Your task to perform on an android device: manage bookmarks in the chrome app Image 0: 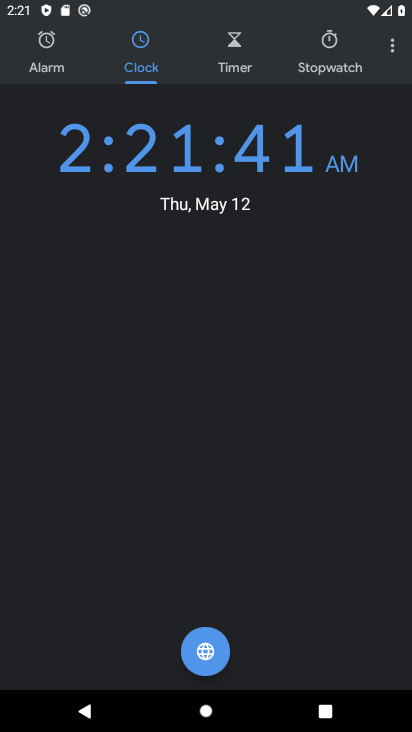
Step 0: press home button
Your task to perform on an android device: manage bookmarks in the chrome app Image 1: 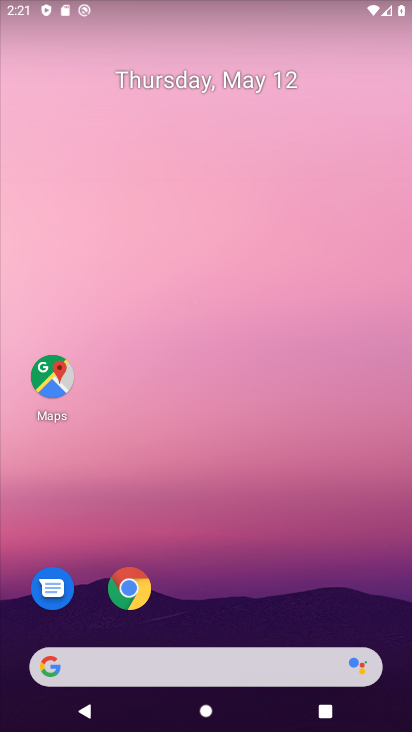
Step 1: drag from (221, 233) to (180, 29)
Your task to perform on an android device: manage bookmarks in the chrome app Image 2: 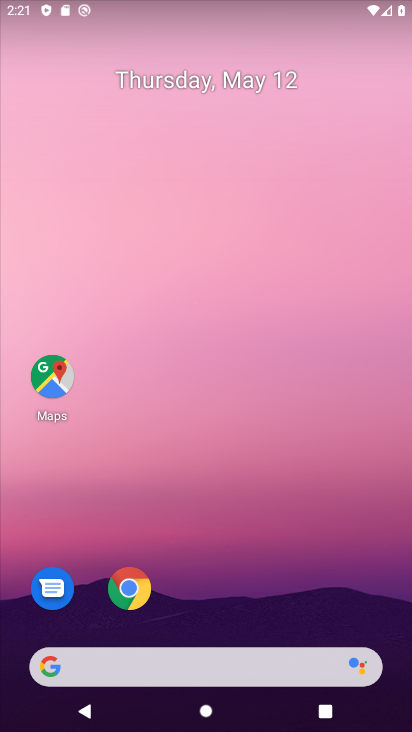
Step 2: click (140, 591)
Your task to perform on an android device: manage bookmarks in the chrome app Image 3: 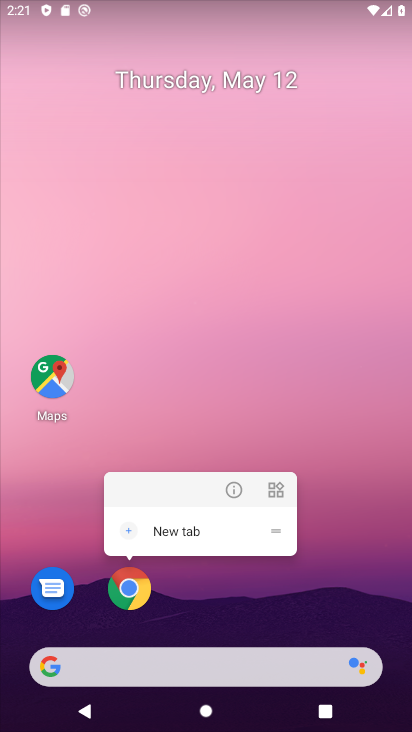
Step 3: drag from (217, 625) to (152, 6)
Your task to perform on an android device: manage bookmarks in the chrome app Image 4: 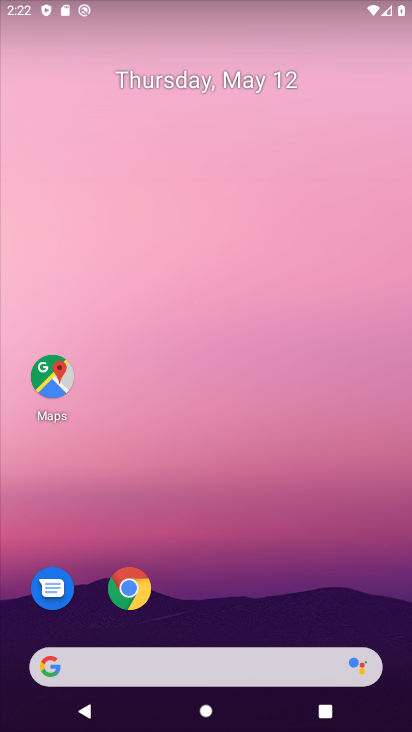
Step 4: drag from (239, 569) to (213, 17)
Your task to perform on an android device: manage bookmarks in the chrome app Image 5: 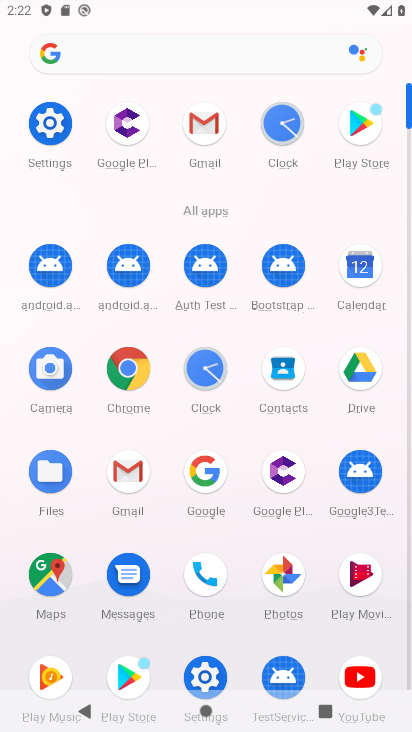
Step 5: click (121, 367)
Your task to perform on an android device: manage bookmarks in the chrome app Image 6: 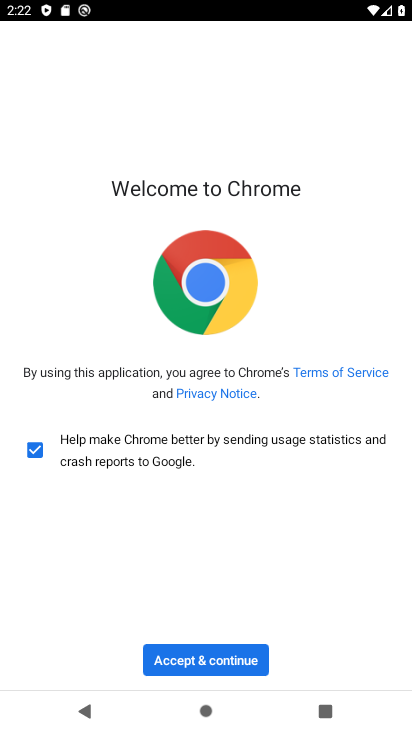
Step 6: click (211, 668)
Your task to perform on an android device: manage bookmarks in the chrome app Image 7: 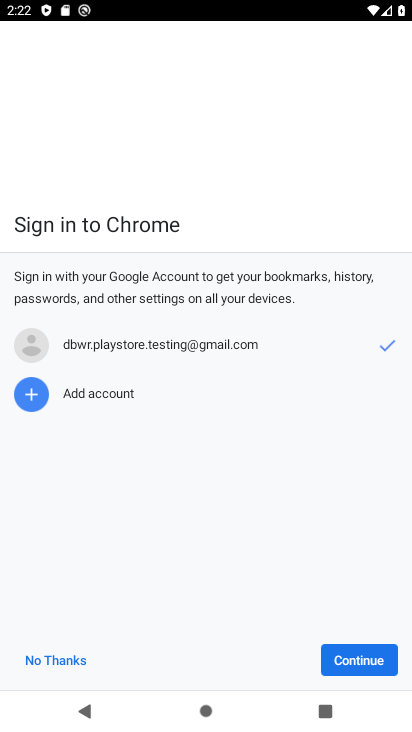
Step 7: click (370, 658)
Your task to perform on an android device: manage bookmarks in the chrome app Image 8: 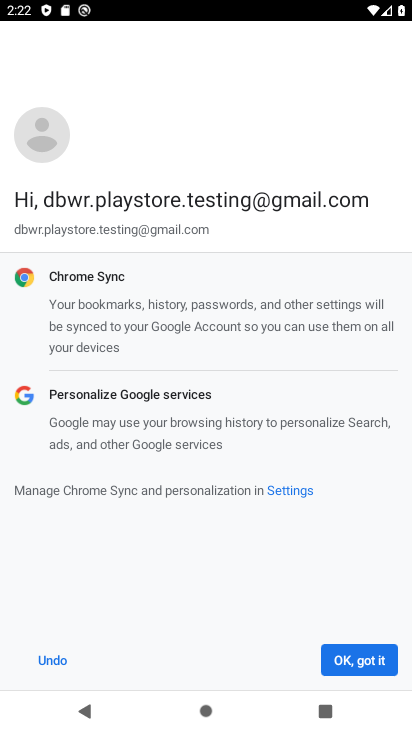
Step 8: click (370, 658)
Your task to perform on an android device: manage bookmarks in the chrome app Image 9: 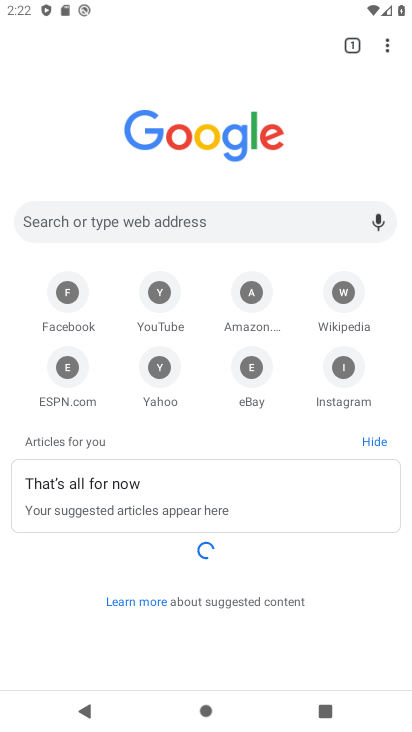
Step 9: task complete